Your task to perform on an android device: Open Google Chrome and click the shortcut for Amazon.com Image 0: 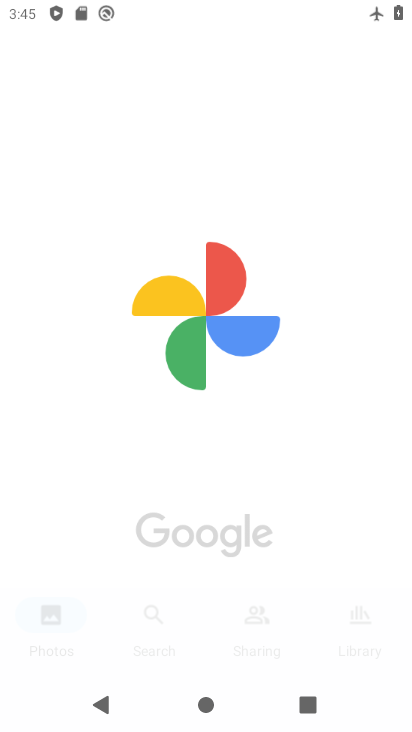
Step 0: click (126, 544)
Your task to perform on an android device: Open Google Chrome and click the shortcut for Amazon.com Image 1: 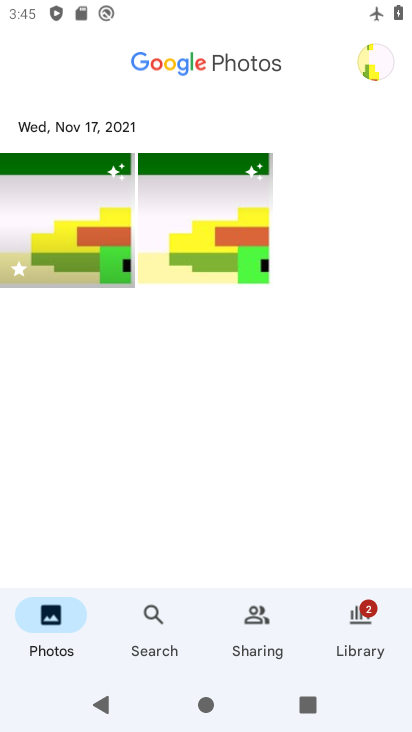
Step 1: press home button
Your task to perform on an android device: Open Google Chrome and click the shortcut for Amazon.com Image 2: 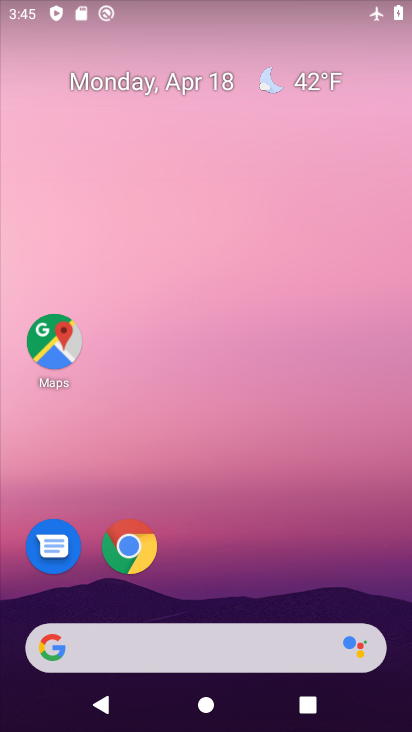
Step 2: drag from (262, 593) to (235, 174)
Your task to perform on an android device: Open Google Chrome and click the shortcut for Amazon.com Image 3: 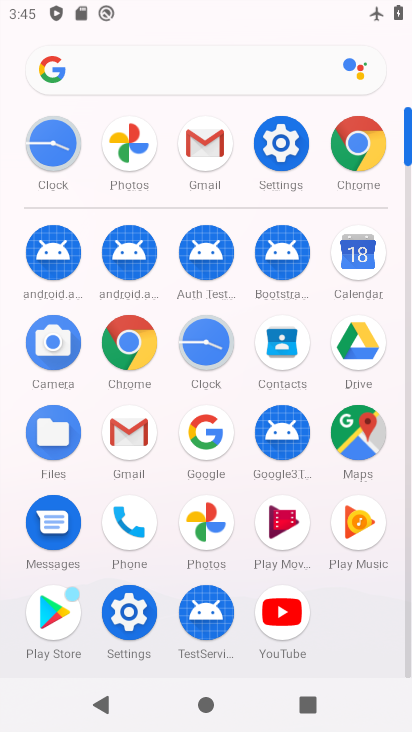
Step 3: click (354, 151)
Your task to perform on an android device: Open Google Chrome and click the shortcut for Amazon.com Image 4: 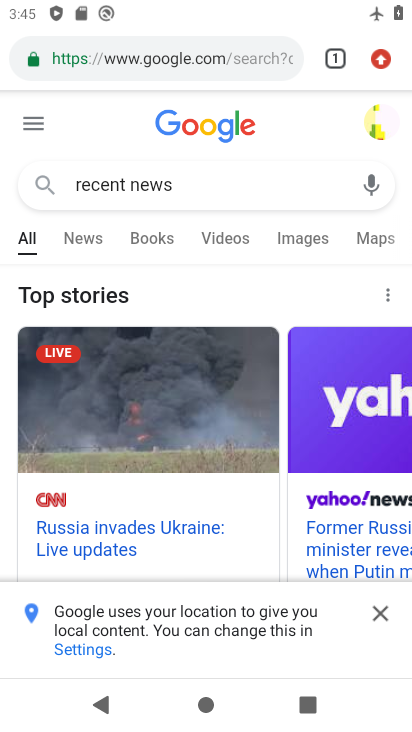
Step 4: click (334, 60)
Your task to perform on an android device: Open Google Chrome and click the shortcut for Amazon.com Image 5: 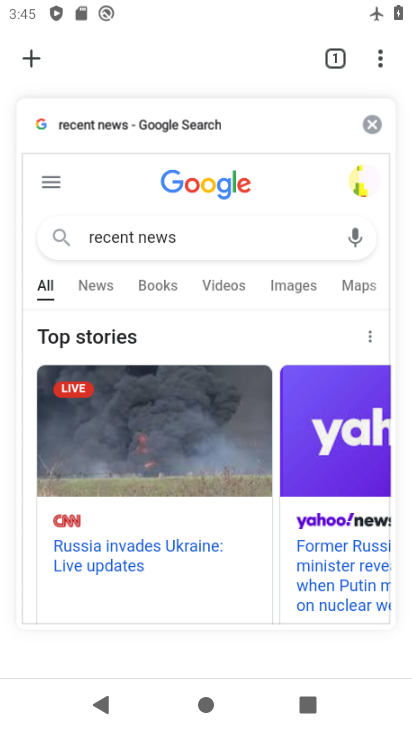
Step 5: click (25, 53)
Your task to perform on an android device: Open Google Chrome and click the shortcut for Amazon.com Image 6: 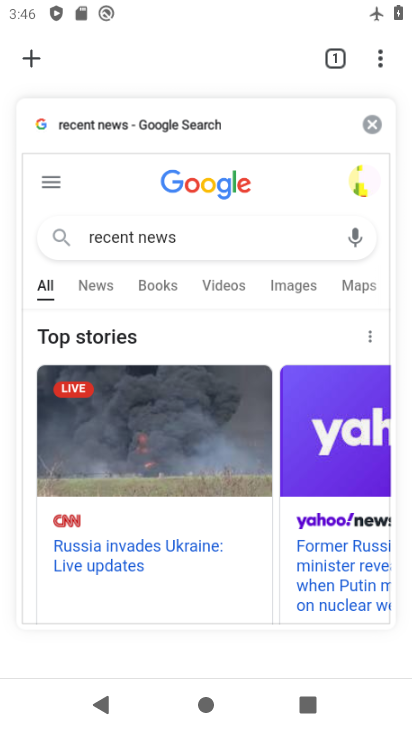
Step 6: click (32, 56)
Your task to perform on an android device: Open Google Chrome and click the shortcut for Amazon.com Image 7: 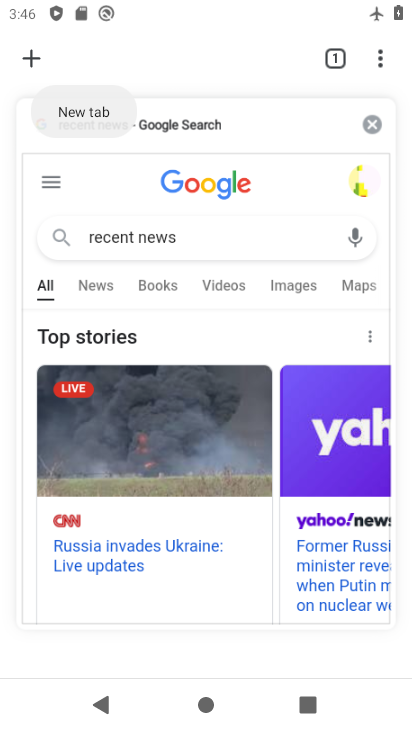
Step 7: click (74, 121)
Your task to perform on an android device: Open Google Chrome and click the shortcut for Amazon.com Image 8: 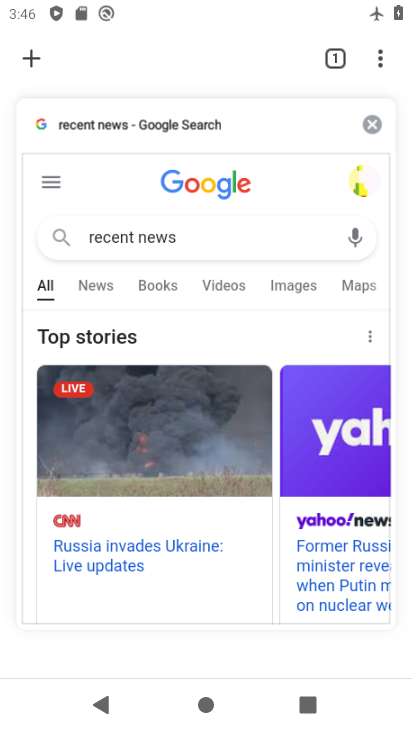
Step 8: click (382, 55)
Your task to perform on an android device: Open Google Chrome and click the shortcut for Amazon.com Image 9: 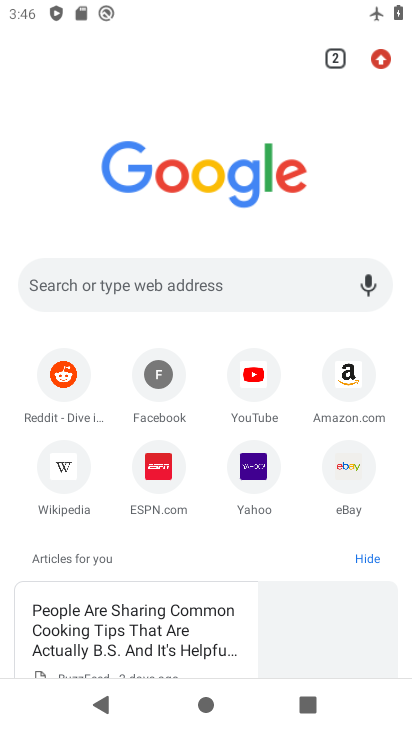
Step 9: click (354, 376)
Your task to perform on an android device: Open Google Chrome and click the shortcut for Amazon.com Image 10: 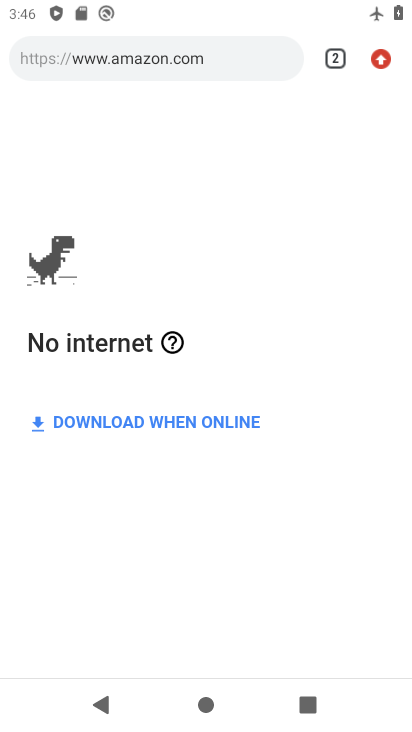
Step 10: task complete